Your task to perform on an android device: turn on data saver in the chrome app Image 0: 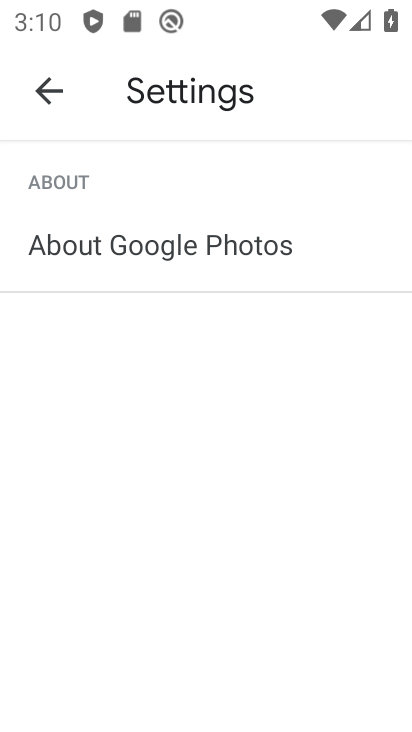
Step 0: press home button
Your task to perform on an android device: turn on data saver in the chrome app Image 1: 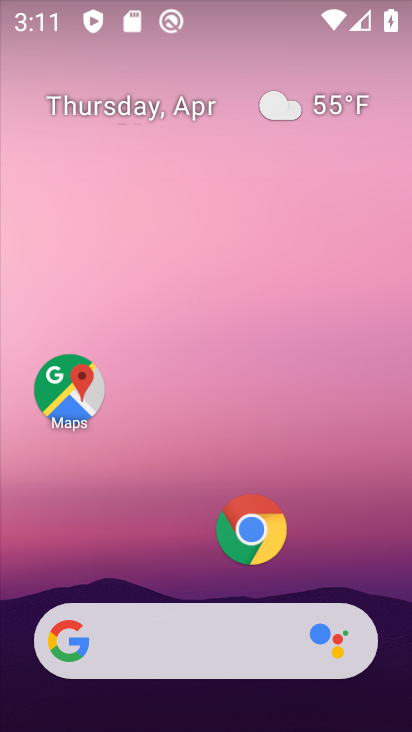
Step 1: drag from (120, 579) to (181, 86)
Your task to perform on an android device: turn on data saver in the chrome app Image 2: 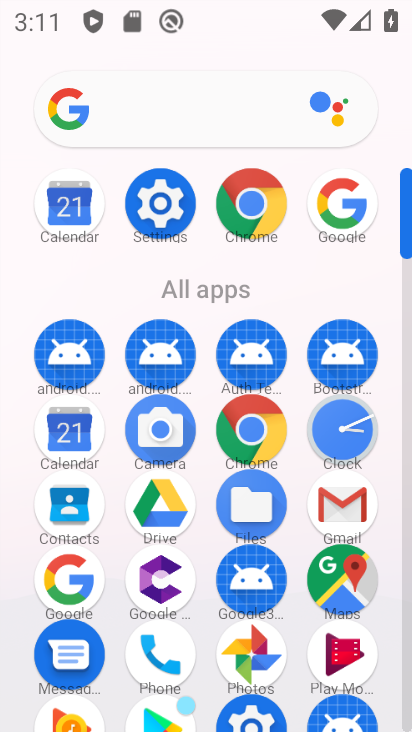
Step 2: click (248, 430)
Your task to perform on an android device: turn on data saver in the chrome app Image 3: 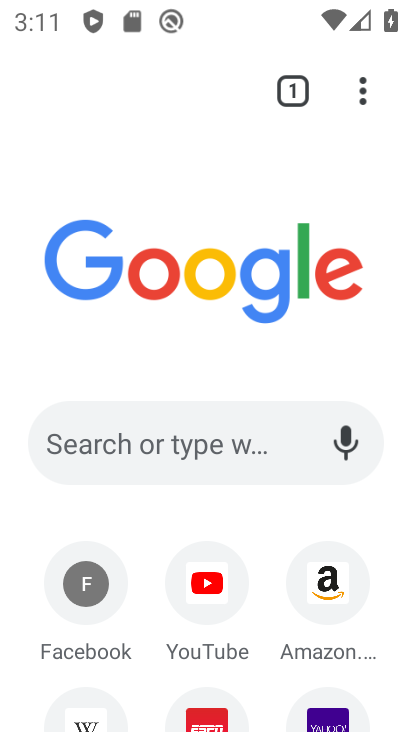
Step 3: click (363, 103)
Your task to perform on an android device: turn on data saver in the chrome app Image 4: 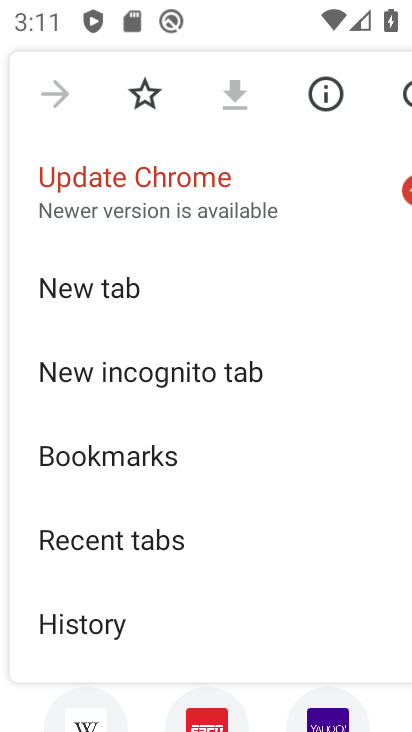
Step 4: drag from (139, 613) to (211, 156)
Your task to perform on an android device: turn on data saver in the chrome app Image 5: 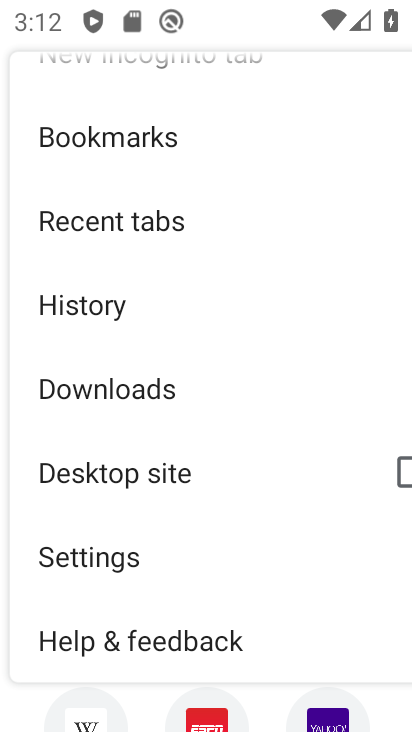
Step 5: drag from (132, 571) to (147, 258)
Your task to perform on an android device: turn on data saver in the chrome app Image 6: 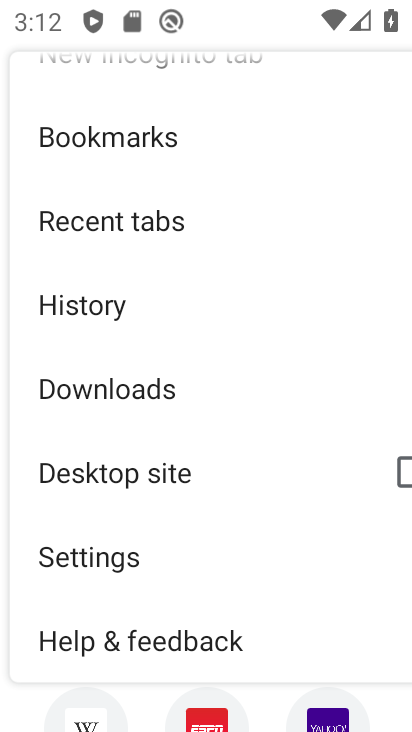
Step 6: click (96, 562)
Your task to perform on an android device: turn on data saver in the chrome app Image 7: 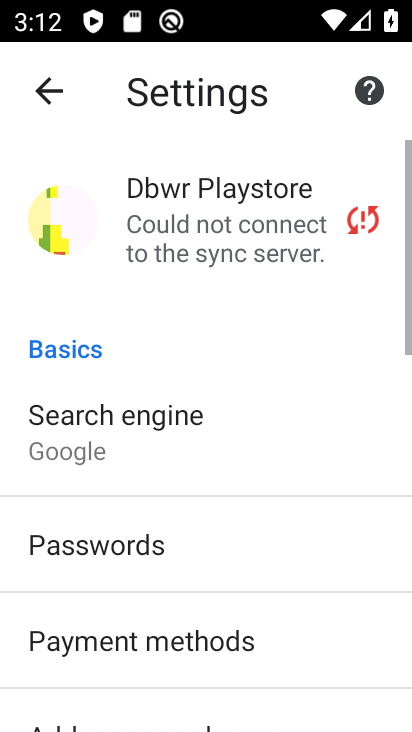
Step 7: drag from (101, 583) to (206, 126)
Your task to perform on an android device: turn on data saver in the chrome app Image 8: 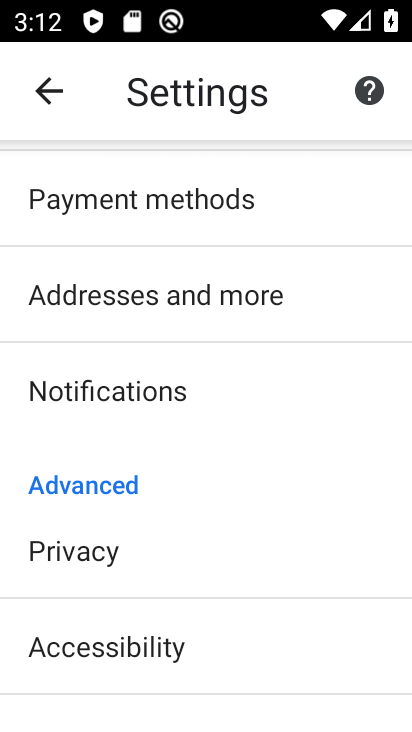
Step 8: drag from (102, 583) to (164, 309)
Your task to perform on an android device: turn on data saver in the chrome app Image 9: 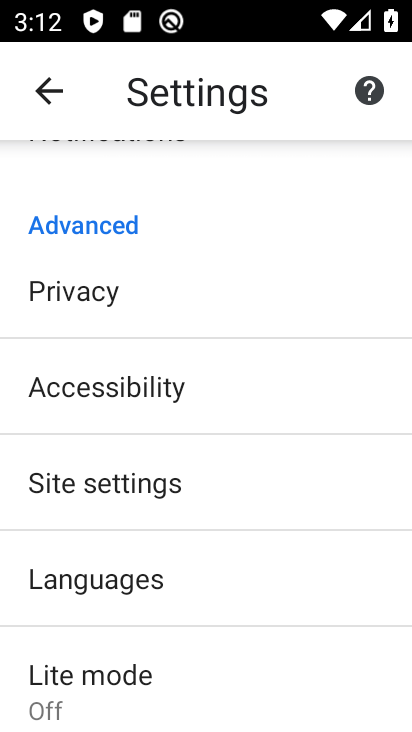
Step 9: click (77, 684)
Your task to perform on an android device: turn on data saver in the chrome app Image 10: 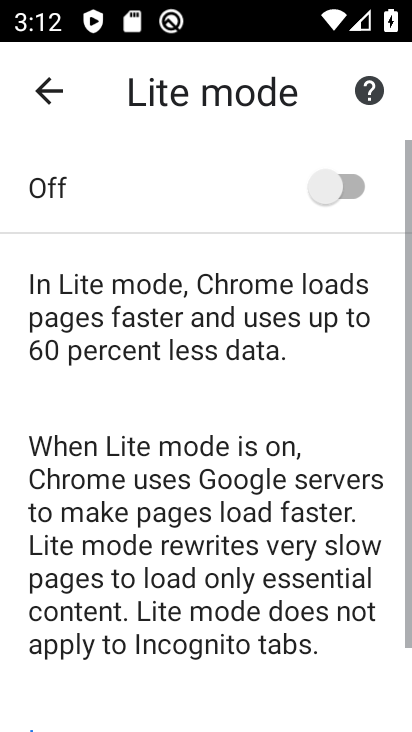
Step 10: click (325, 187)
Your task to perform on an android device: turn on data saver in the chrome app Image 11: 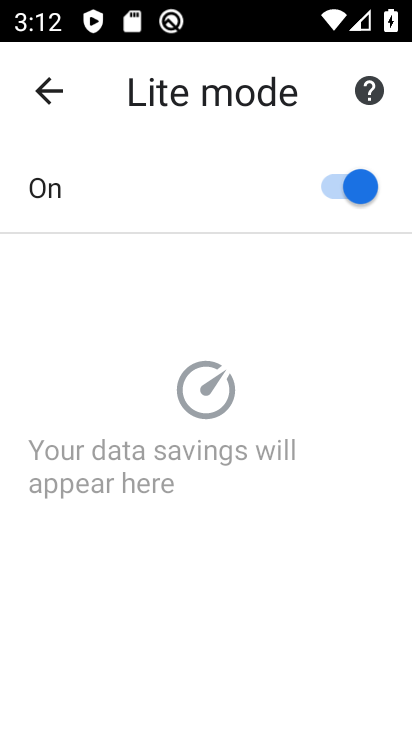
Step 11: task complete